Your task to perform on an android device: see tabs open on other devices in the chrome app Image 0: 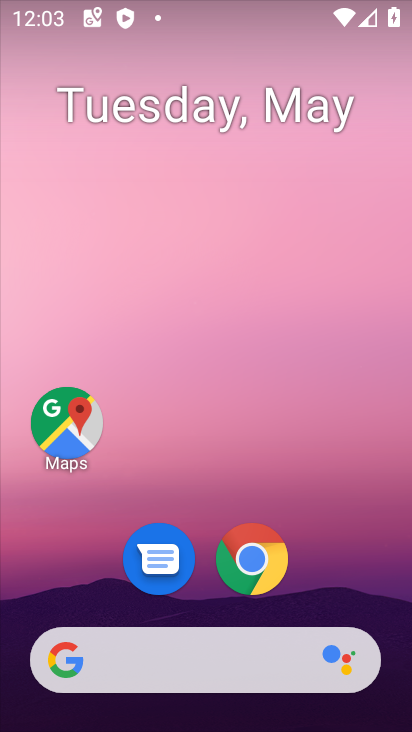
Step 0: click (245, 582)
Your task to perform on an android device: see tabs open on other devices in the chrome app Image 1: 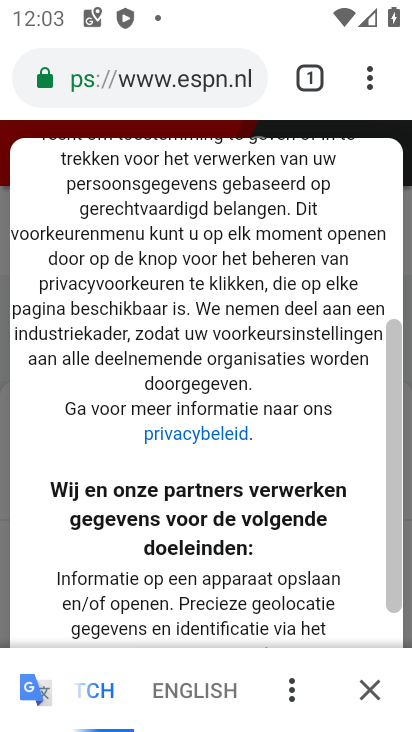
Step 1: click (372, 84)
Your task to perform on an android device: see tabs open on other devices in the chrome app Image 2: 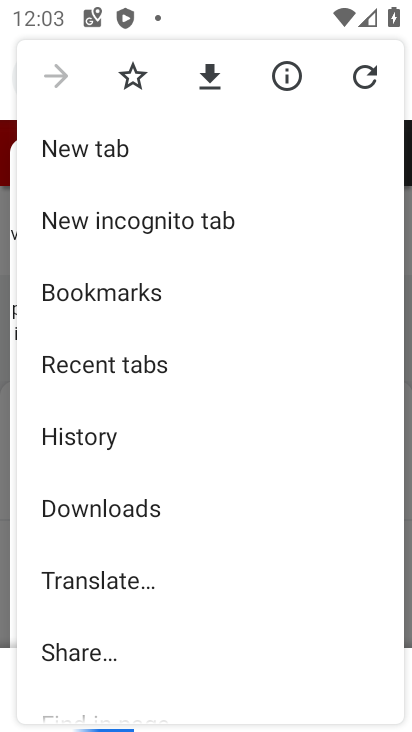
Step 2: click (129, 128)
Your task to perform on an android device: see tabs open on other devices in the chrome app Image 3: 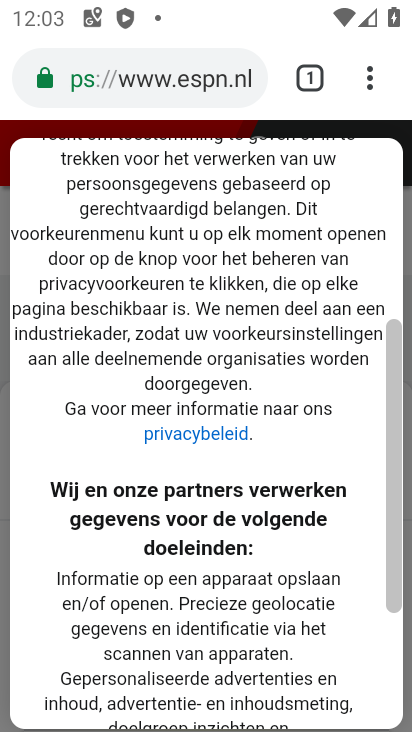
Step 3: task complete